Your task to perform on an android device: move an email to a new category in the gmail app Image 0: 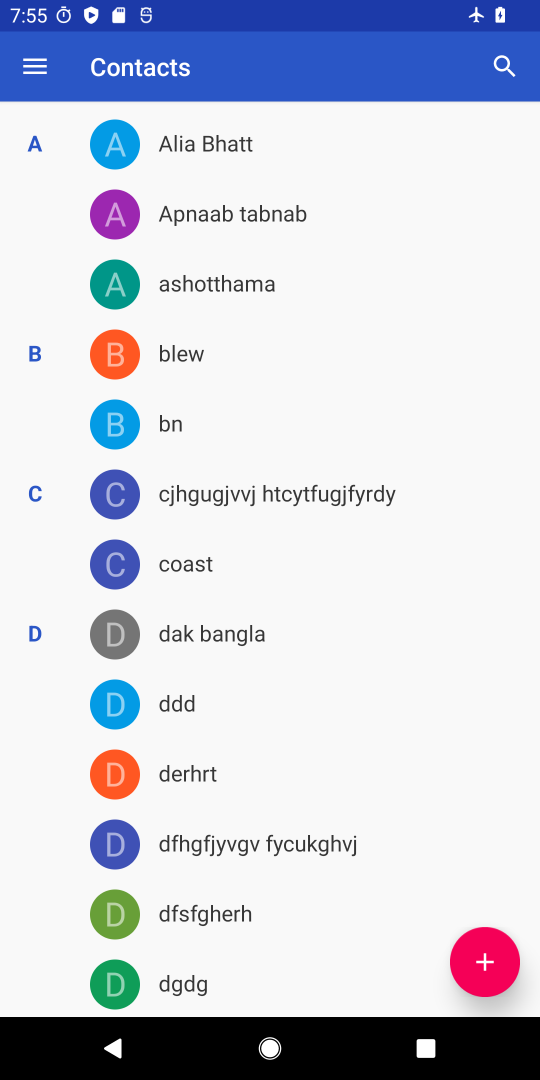
Step 0: press home button
Your task to perform on an android device: move an email to a new category in the gmail app Image 1: 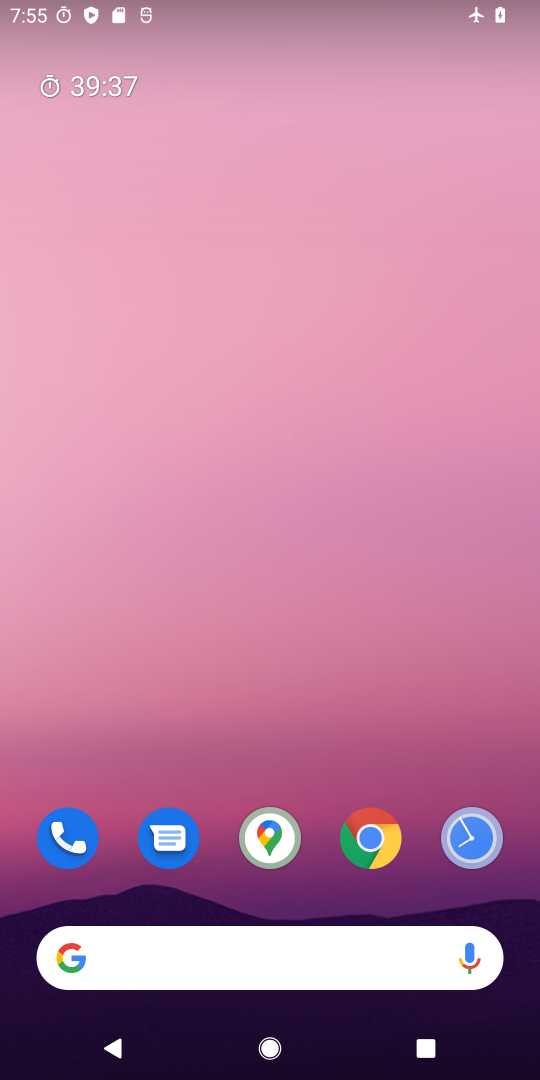
Step 1: drag from (268, 877) to (404, 187)
Your task to perform on an android device: move an email to a new category in the gmail app Image 2: 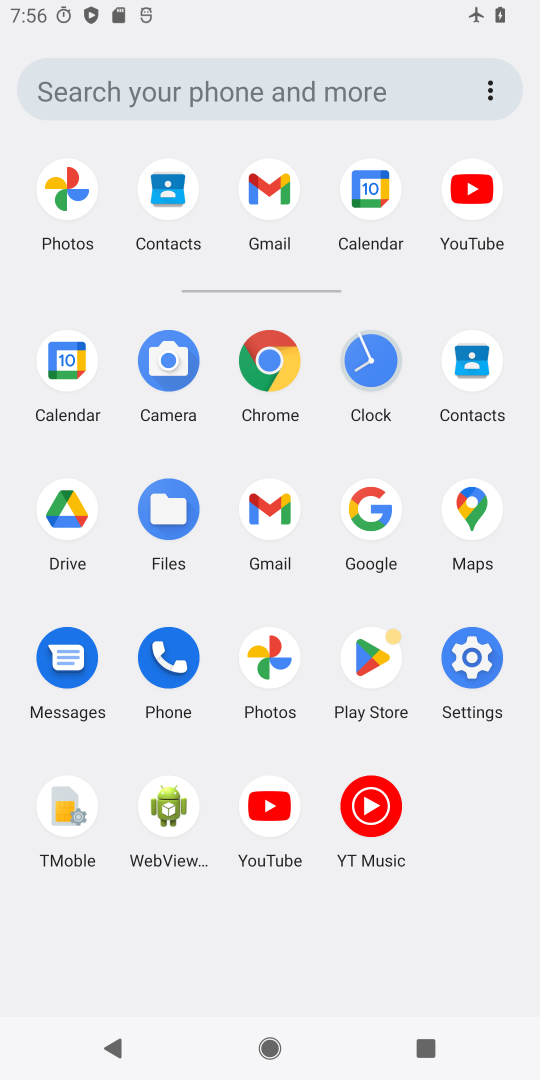
Step 2: click (274, 509)
Your task to perform on an android device: move an email to a new category in the gmail app Image 3: 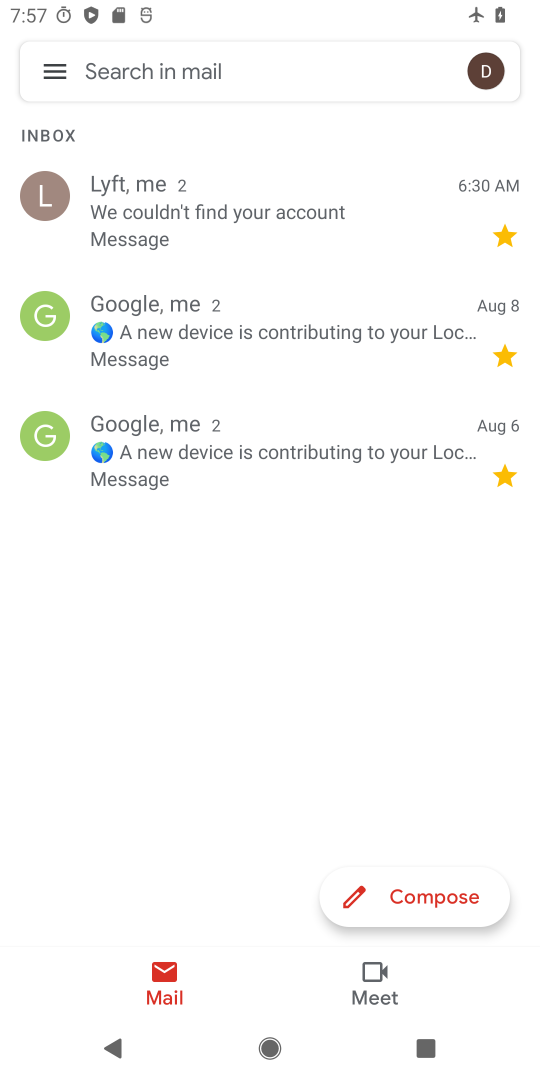
Step 3: click (55, 197)
Your task to perform on an android device: move an email to a new category in the gmail app Image 4: 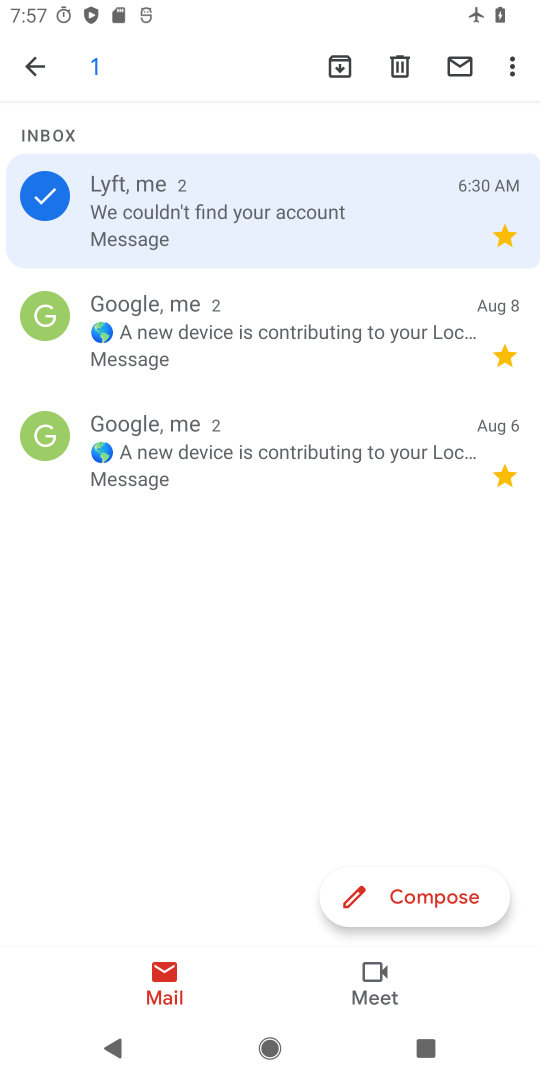
Step 4: click (519, 54)
Your task to perform on an android device: move an email to a new category in the gmail app Image 5: 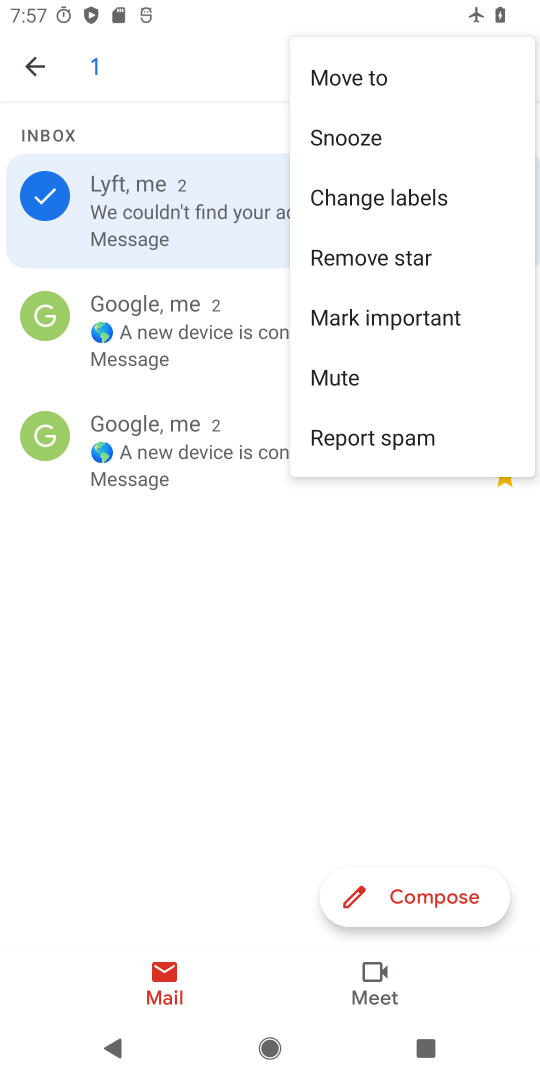
Step 5: task complete